Your task to perform on an android device: see tabs open on other devices in the chrome app Image 0: 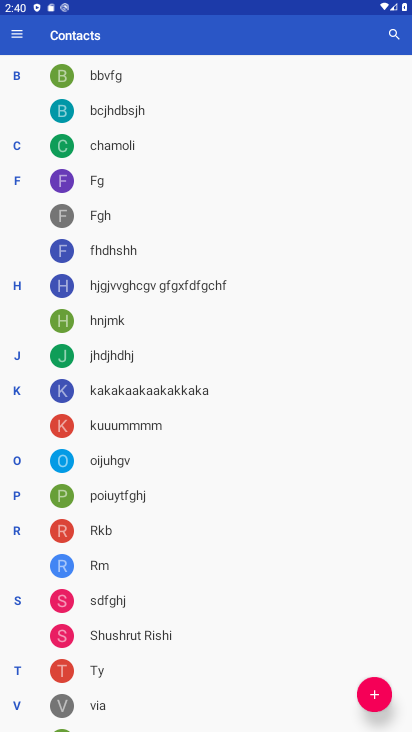
Step 0: press home button
Your task to perform on an android device: see tabs open on other devices in the chrome app Image 1: 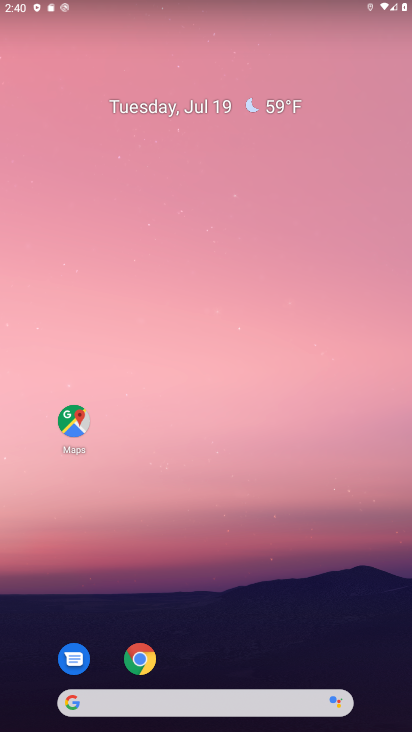
Step 1: click (136, 659)
Your task to perform on an android device: see tabs open on other devices in the chrome app Image 2: 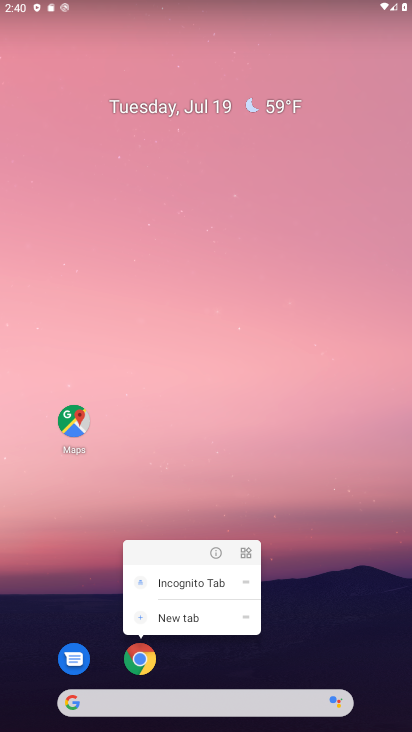
Step 2: click (136, 659)
Your task to perform on an android device: see tabs open on other devices in the chrome app Image 3: 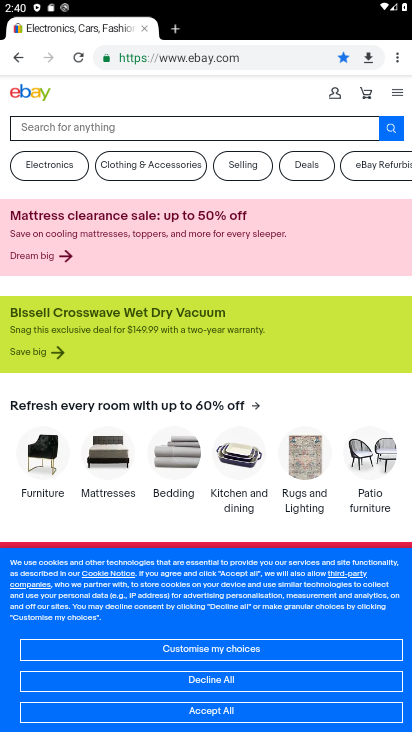
Step 3: click (398, 59)
Your task to perform on an android device: see tabs open on other devices in the chrome app Image 4: 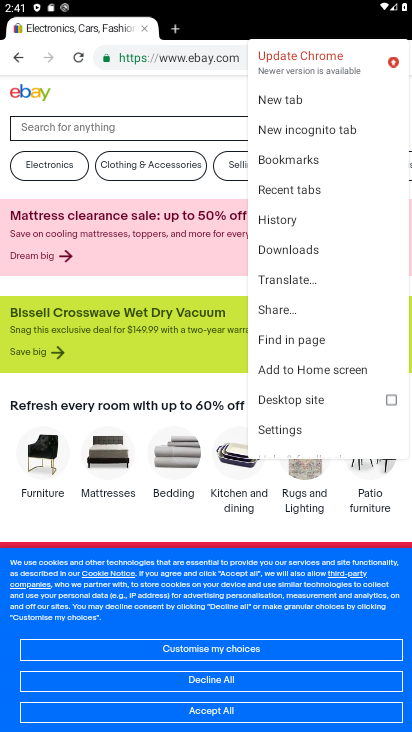
Step 4: click (308, 185)
Your task to perform on an android device: see tabs open on other devices in the chrome app Image 5: 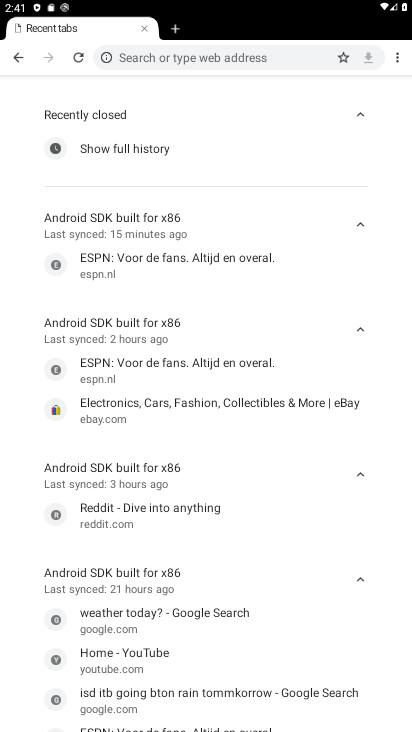
Step 5: task complete